Your task to perform on an android device: Open Reddit.com Image 0: 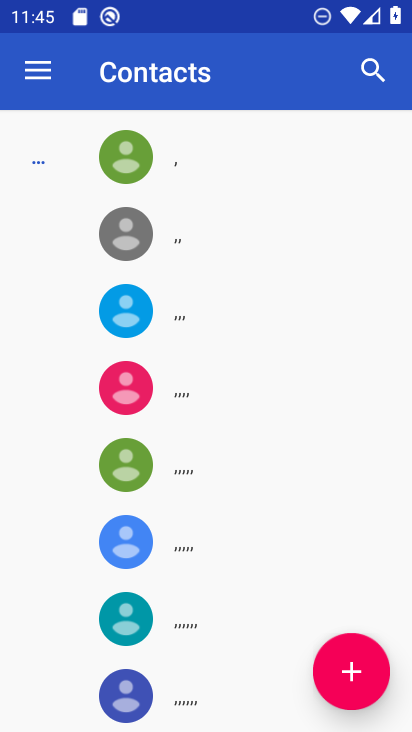
Step 0: press home button
Your task to perform on an android device: Open Reddit.com Image 1: 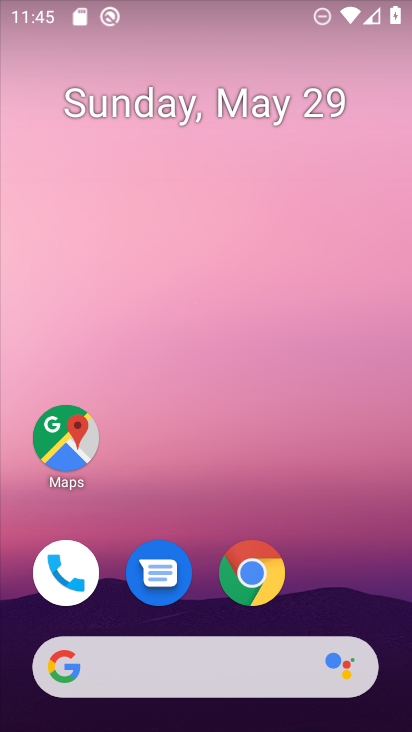
Step 1: click (204, 666)
Your task to perform on an android device: Open Reddit.com Image 2: 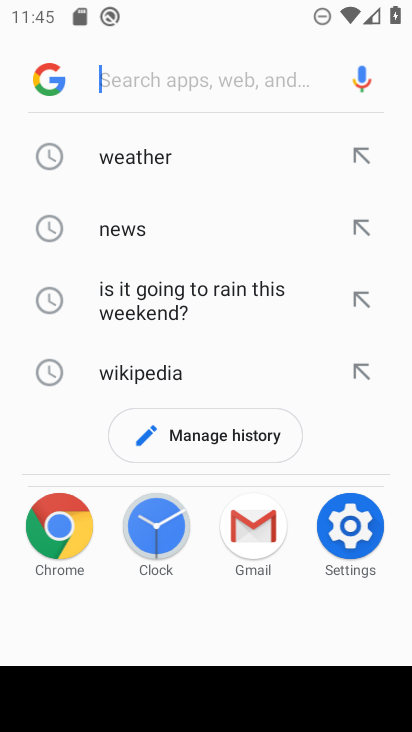
Step 2: type "Reddit.com"
Your task to perform on an android device: Open Reddit.com Image 3: 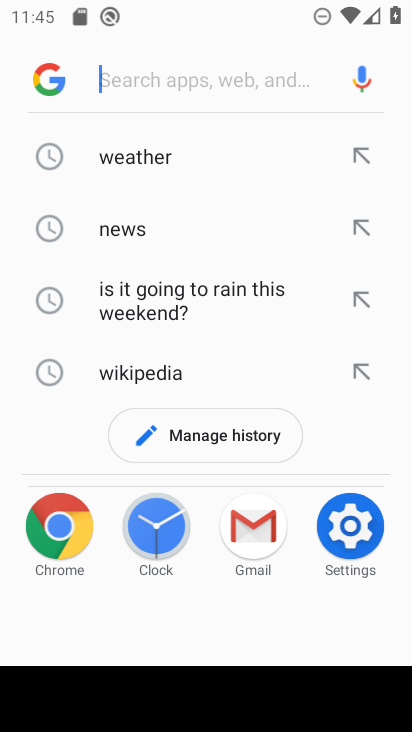
Step 3: click (156, 70)
Your task to perform on an android device: Open Reddit.com Image 4: 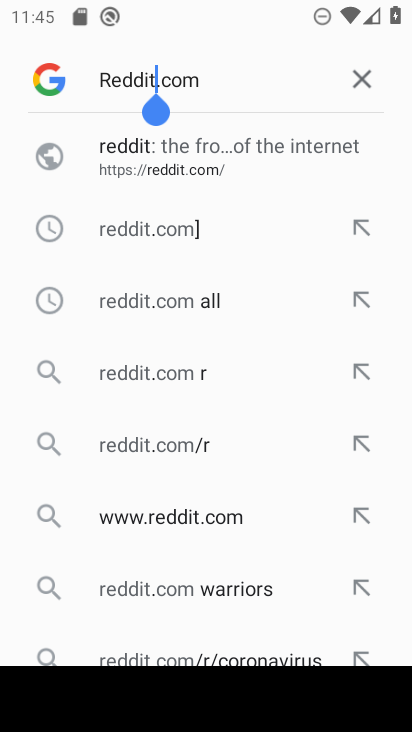
Step 4: click (195, 148)
Your task to perform on an android device: Open Reddit.com Image 5: 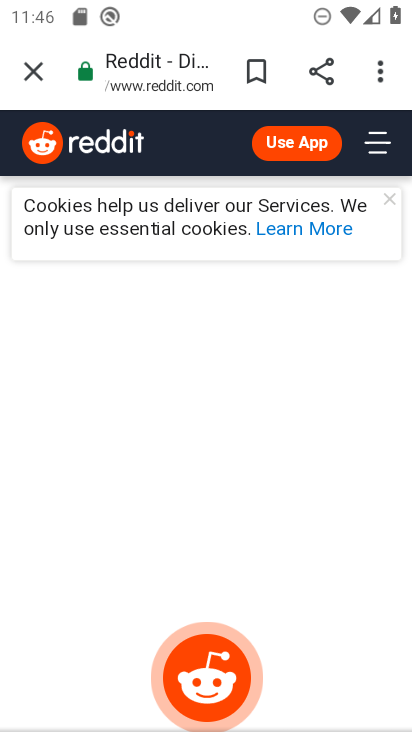
Step 5: task complete